Your task to perform on an android device: stop showing notifications on the lock screen Image 0: 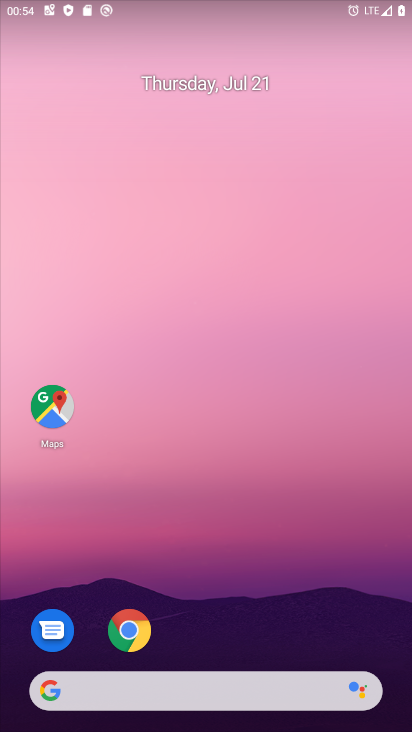
Step 0: drag from (218, 582) to (252, 60)
Your task to perform on an android device: stop showing notifications on the lock screen Image 1: 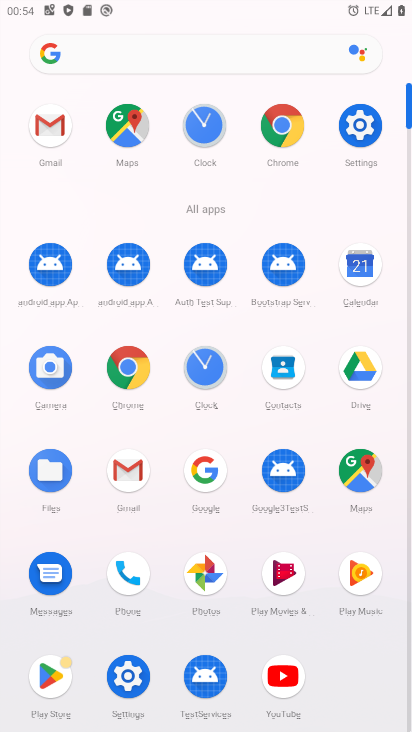
Step 1: click (351, 136)
Your task to perform on an android device: stop showing notifications on the lock screen Image 2: 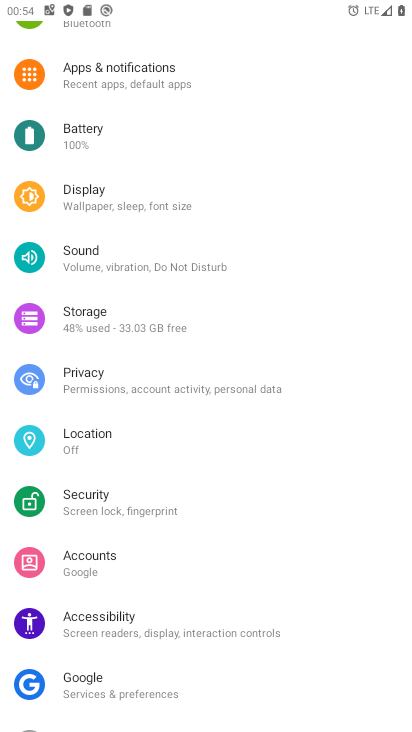
Step 2: click (132, 90)
Your task to perform on an android device: stop showing notifications on the lock screen Image 3: 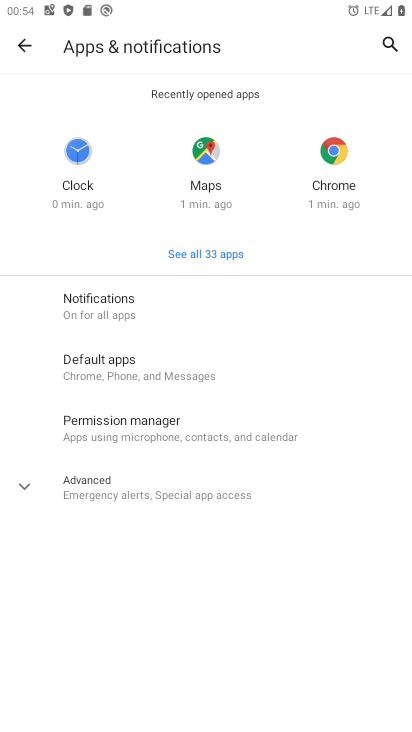
Step 3: click (96, 314)
Your task to perform on an android device: stop showing notifications on the lock screen Image 4: 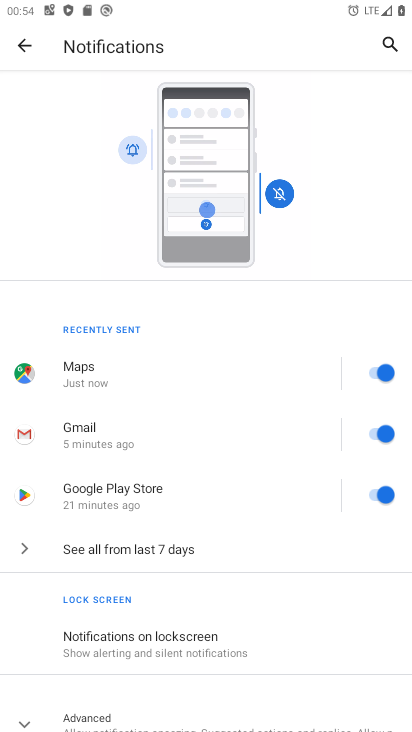
Step 4: click (257, 645)
Your task to perform on an android device: stop showing notifications on the lock screen Image 5: 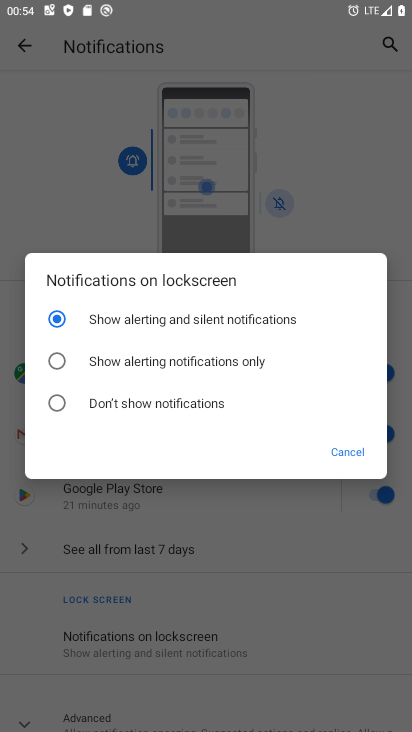
Step 5: click (186, 416)
Your task to perform on an android device: stop showing notifications on the lock screen Image 6: 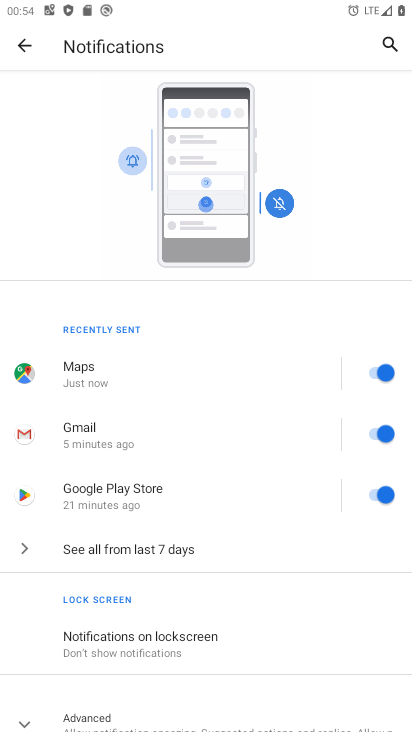
Step 6: task complete